Your task to perform on an android device: open app "Paramount+ | Peak Streaming" (install if not already installed), go to login, and select forgot password Image 0: 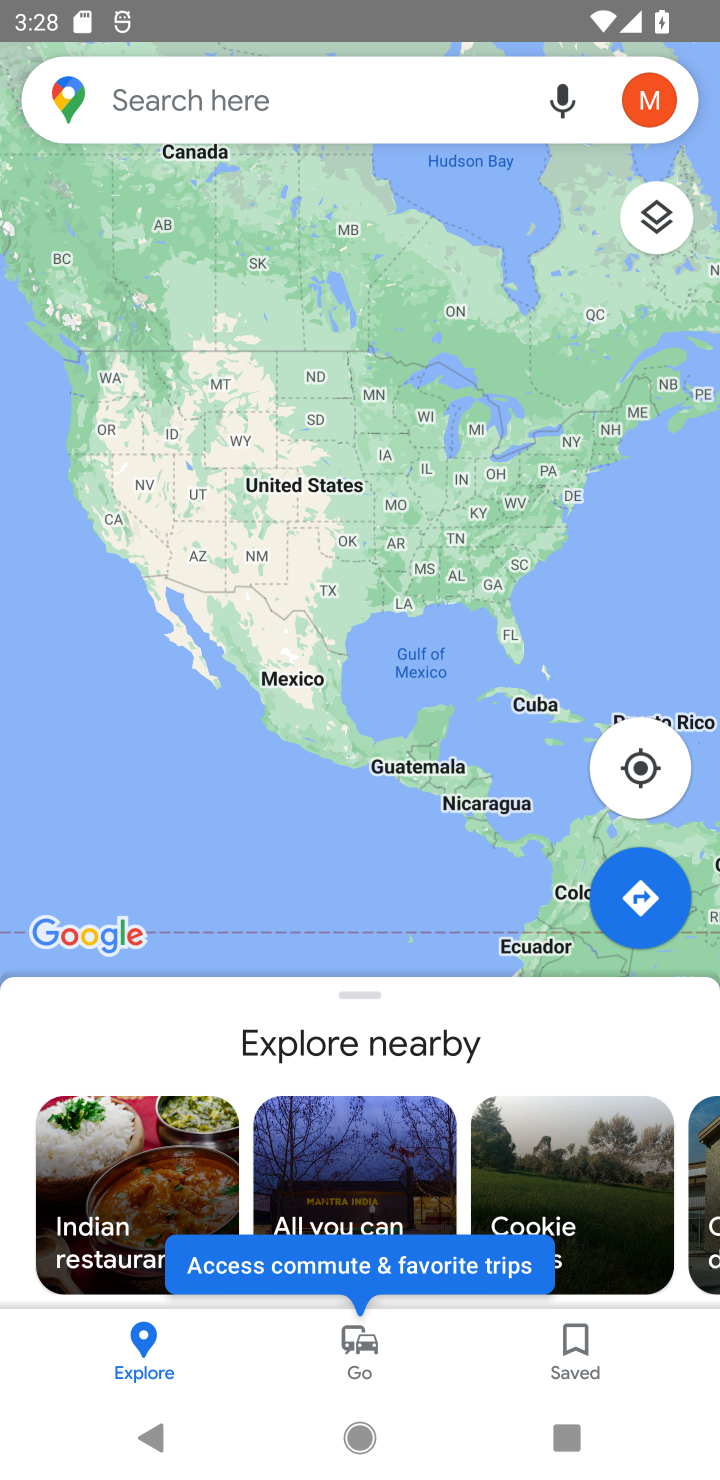
Step 0: click (452, 96)
Your task to perform on an android device: open app "Paramount+ | Peak Streaming" (install if not already installed), go to login, and select forgot password Image 1: 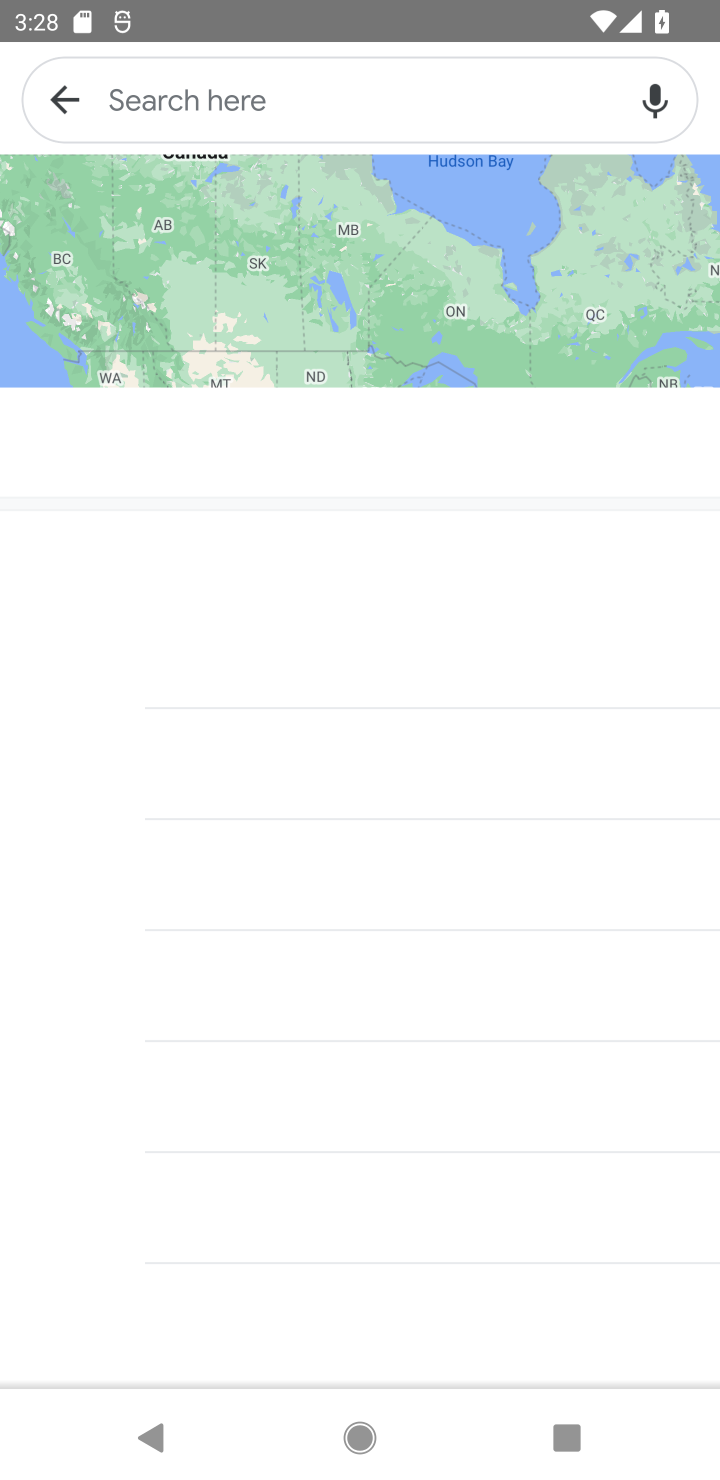
Step 1: press home button
Your task to perform on an android device: open app "Paramount+ | Peak Streaming" (install if not already installed), go to login, and select forgot password Image 2: 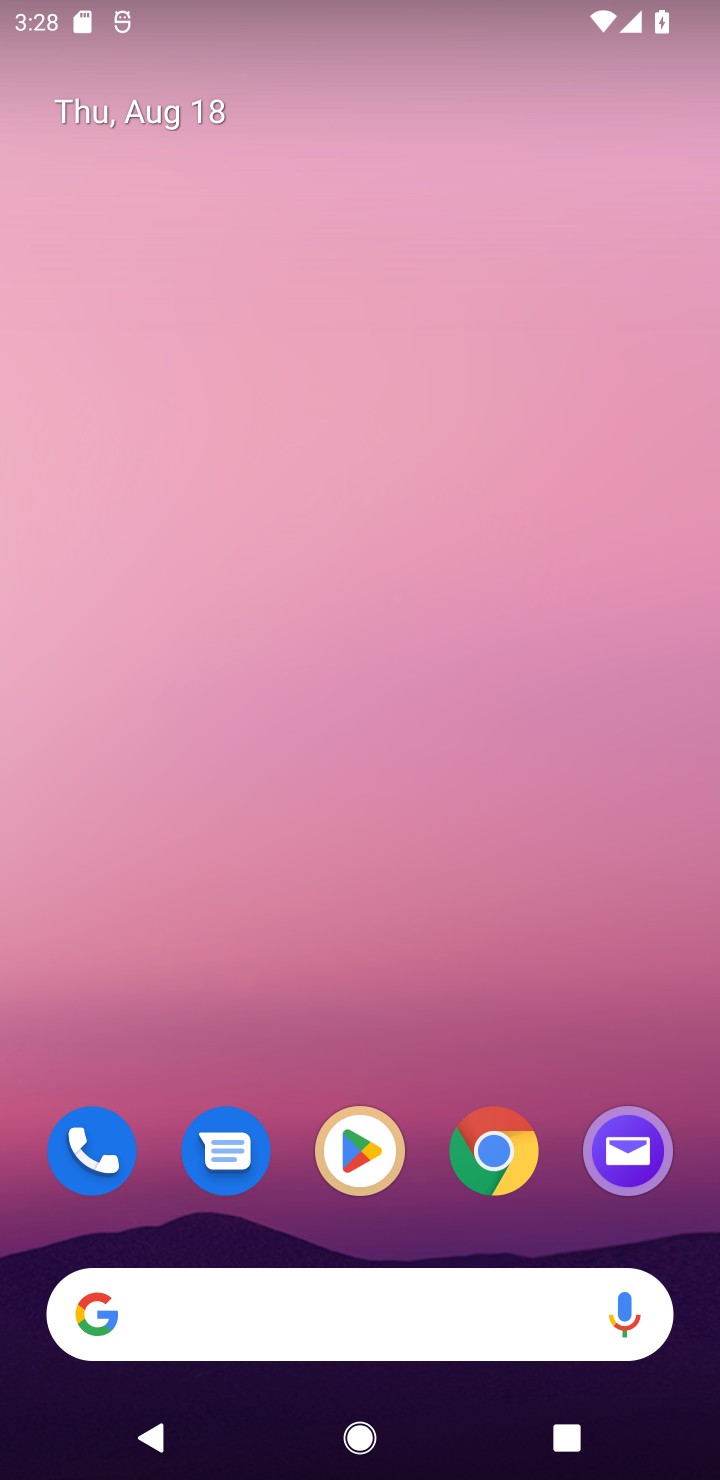
Step 2: click (352, 1153)
Your task to perform on an android device: open app "Paramount+ | Peak Streaming" (install if not already installed), go to login, and select forgot password Image 3: 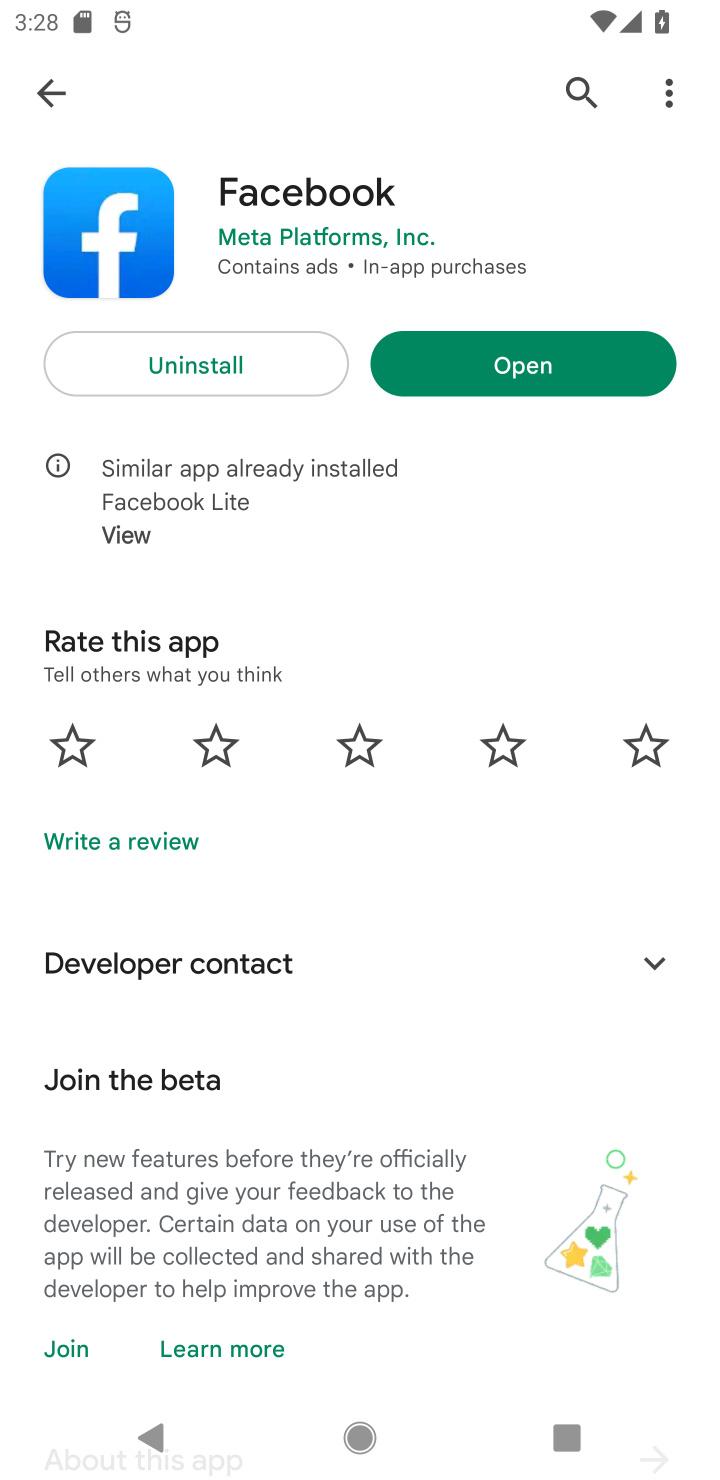
Step 3: click (590, 111)
Your task to perform on an android device: open app "Paramount+ | Peak Streaming" (install if not already installed), go to login, and select forgot password Image 4: 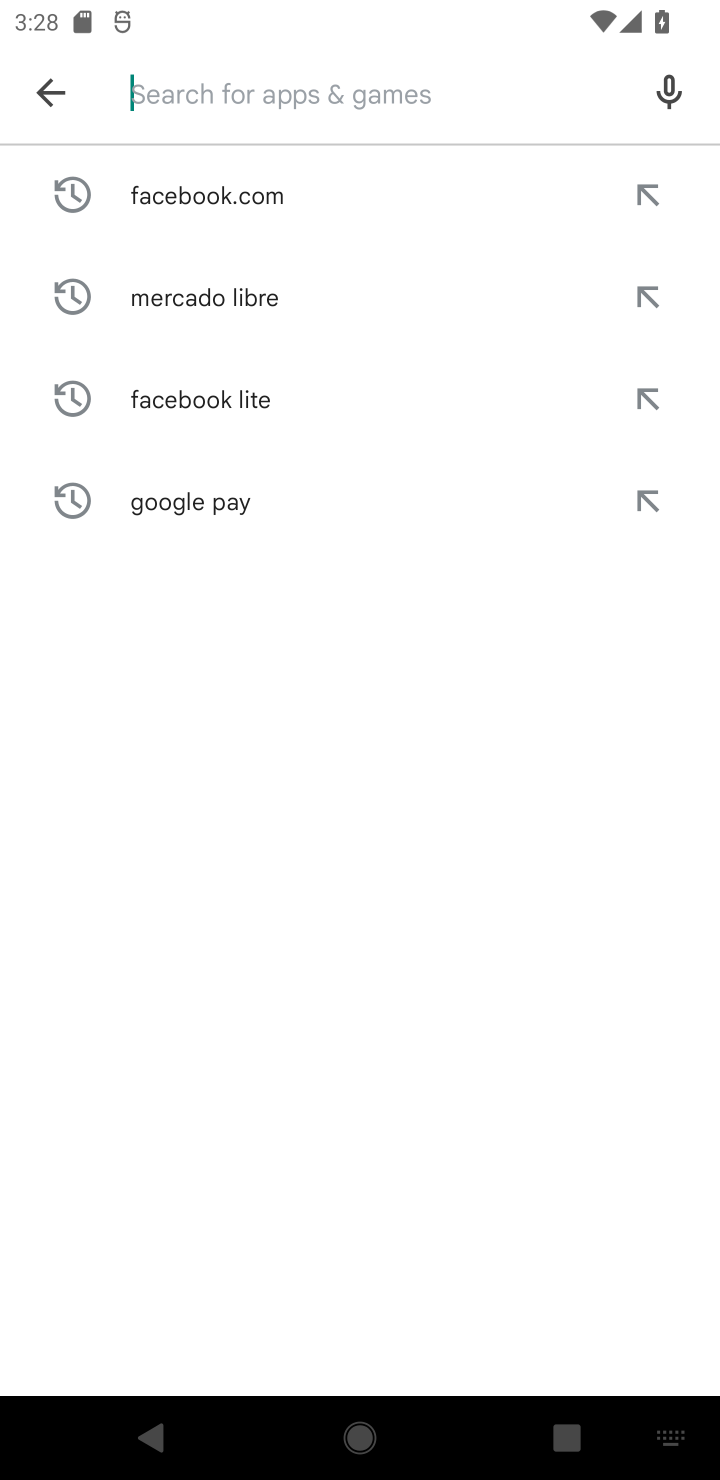
Step 4: click (685, 93)
Your task to perform on an android device: open app "Paramount+ | Peak Streaming" (install if not already installed), go to login, and select forgot password Image 5: 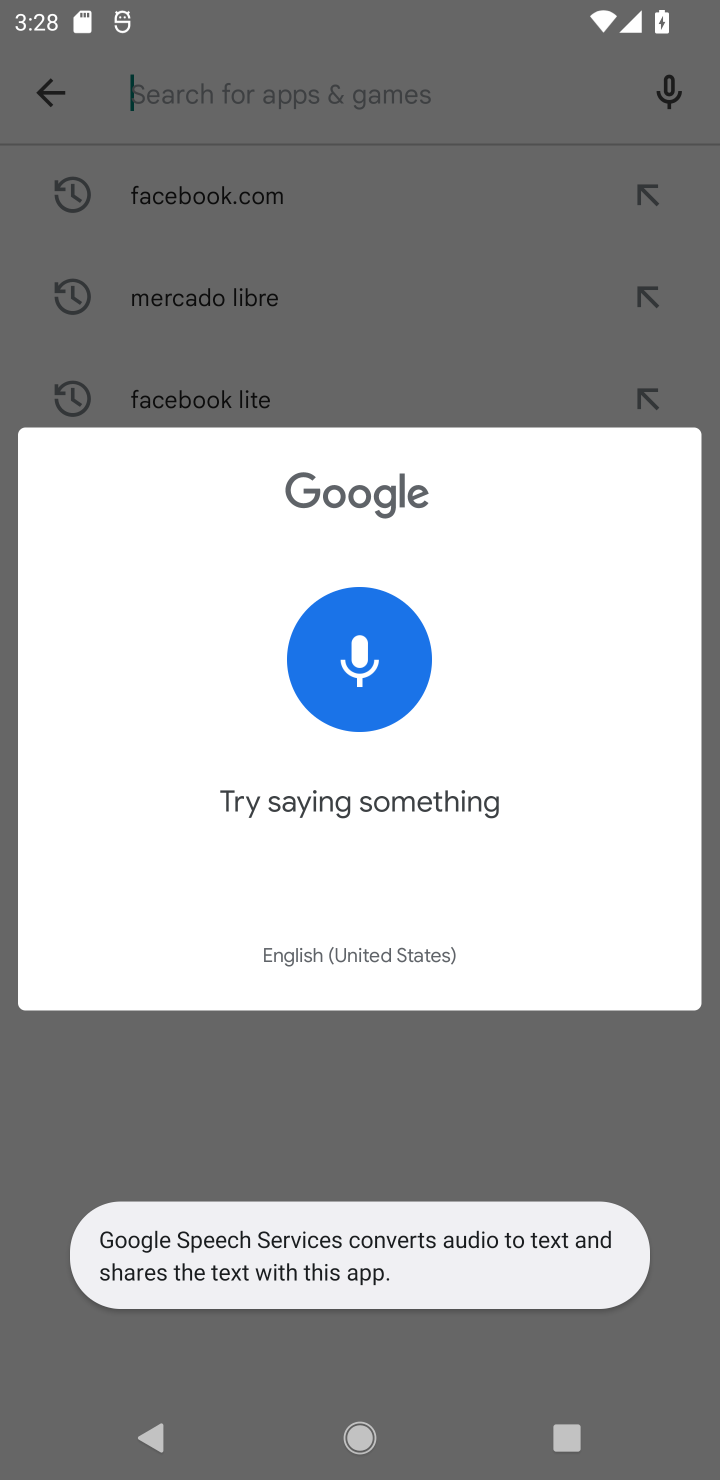
Step 5: click (401, 259)
Your task to perform on an android device: open app "Paramount+ | Peak Streaming" (install if not already installed), go to login, and select forgot password Image 6: 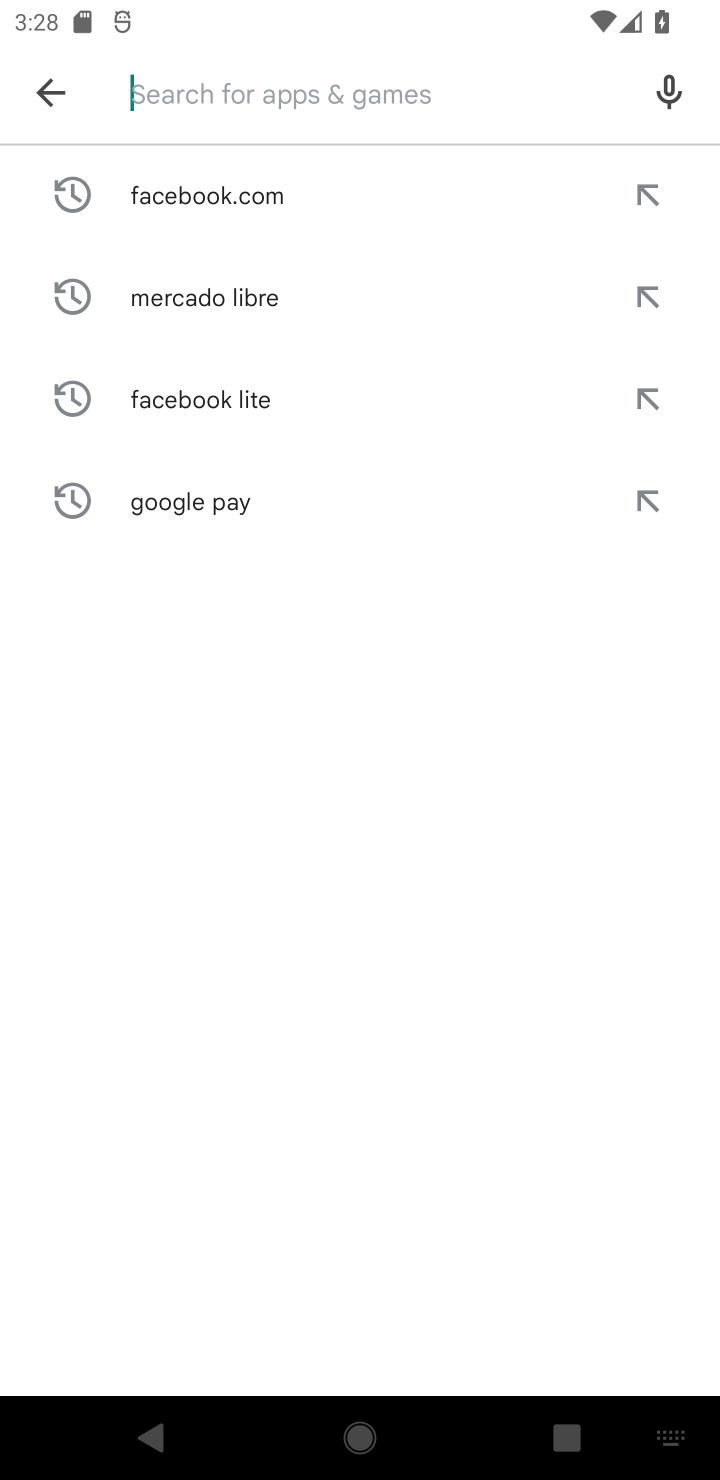
Step 6: press home button
Your task to perform on an android device: open app "Paramount+ | Peak Streaming" (install if not already installed), go to login, and select forgot password Image 7: 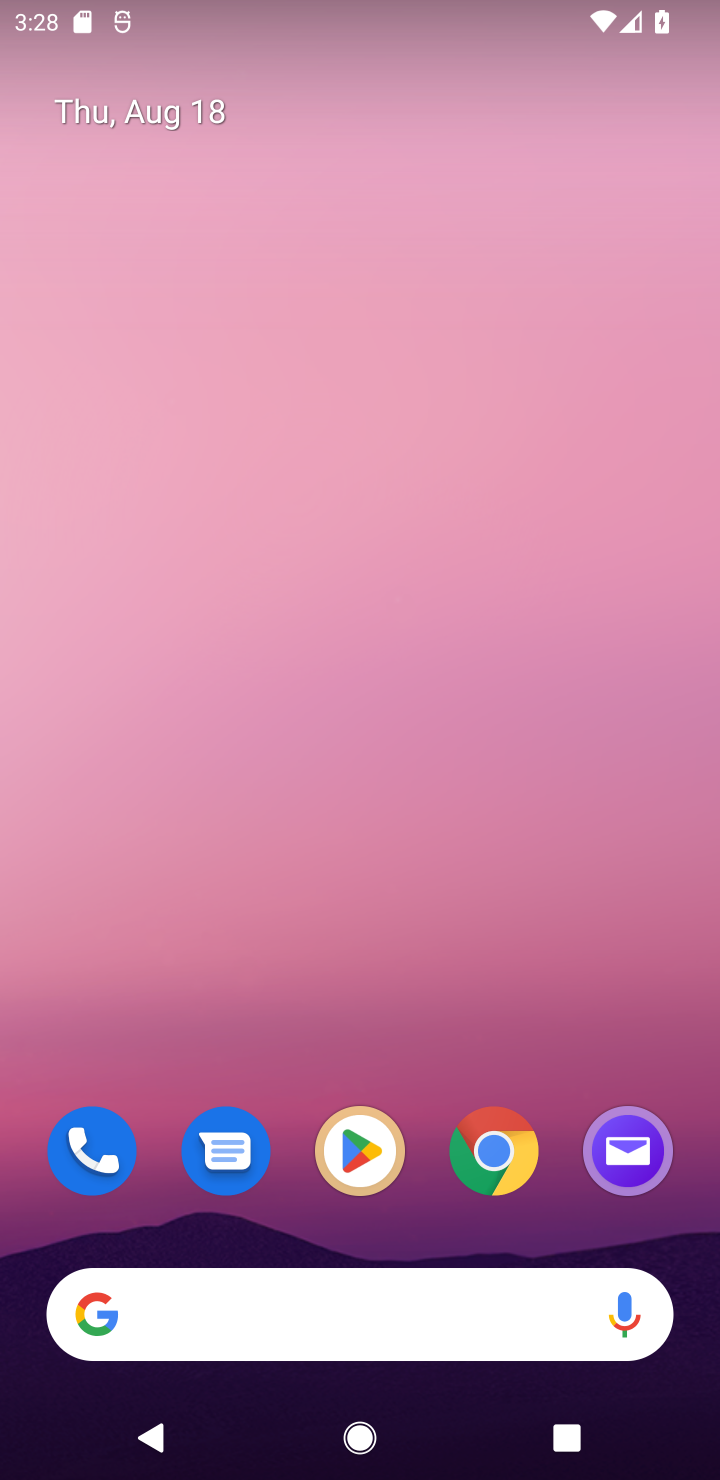
Step 7: drag from (305, 1245) to (554, 213)
Your task to perform on an android device: open app "Paramount+ | Peak Streaming" (install if not already installed), go to login, and select forgot password Image 8: 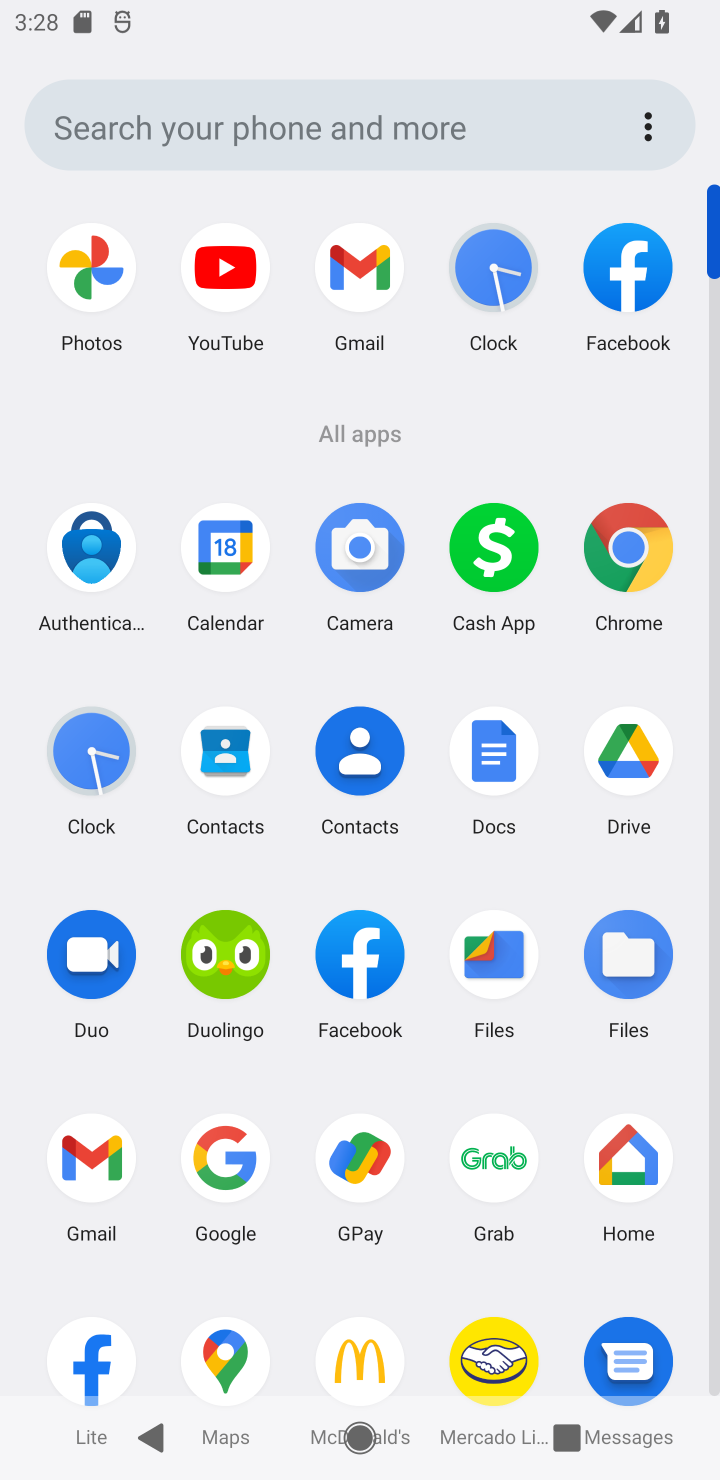
Step 8: click (711, 1365)
Your task to perform on an android device: open app "Paramount+ | Peak Streaming" (install if not already installed), go to login, and select forgot password Image 9: 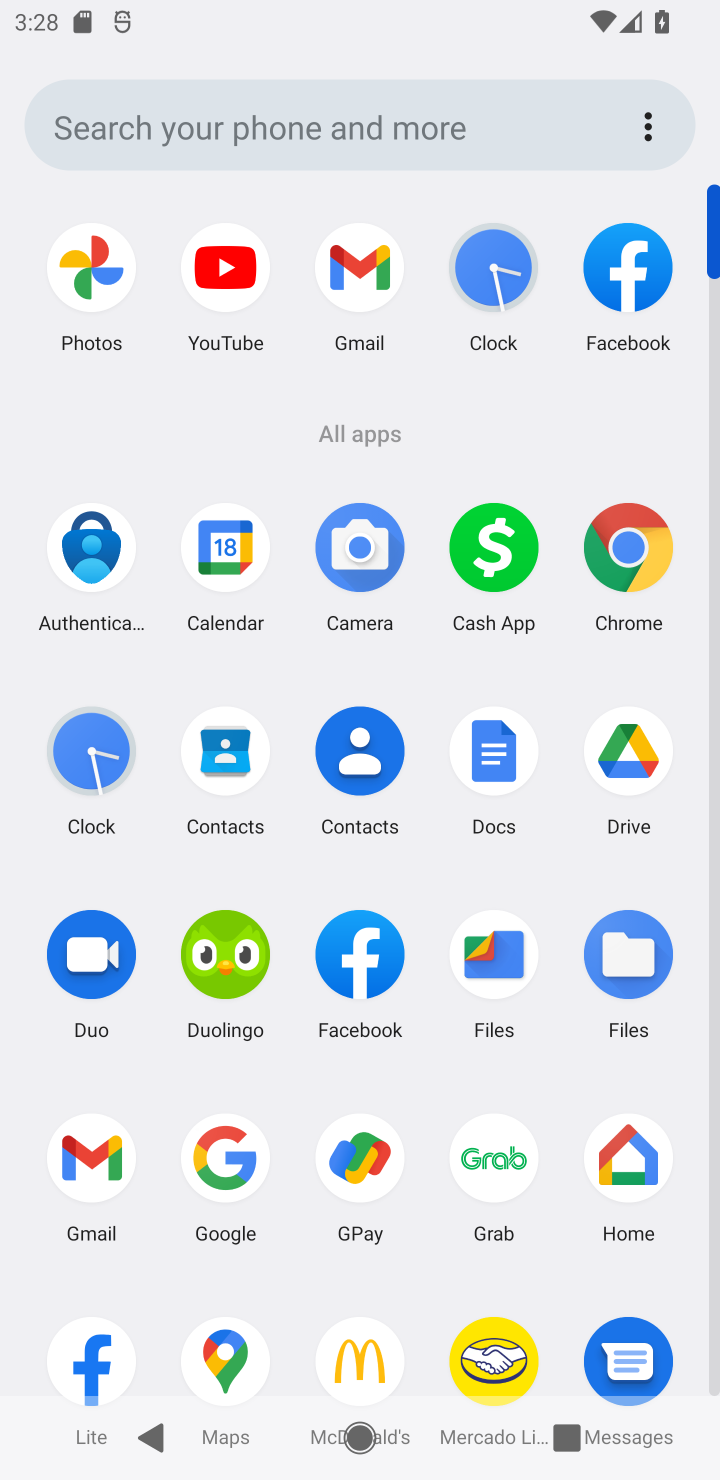
Step 9: drag from (492, 1294) to (548, 488)
Your task to perform on an android device: open app "Paramount+ | Peak Streaming" (install if not already installed), go to login, and select forgot password Image 10: 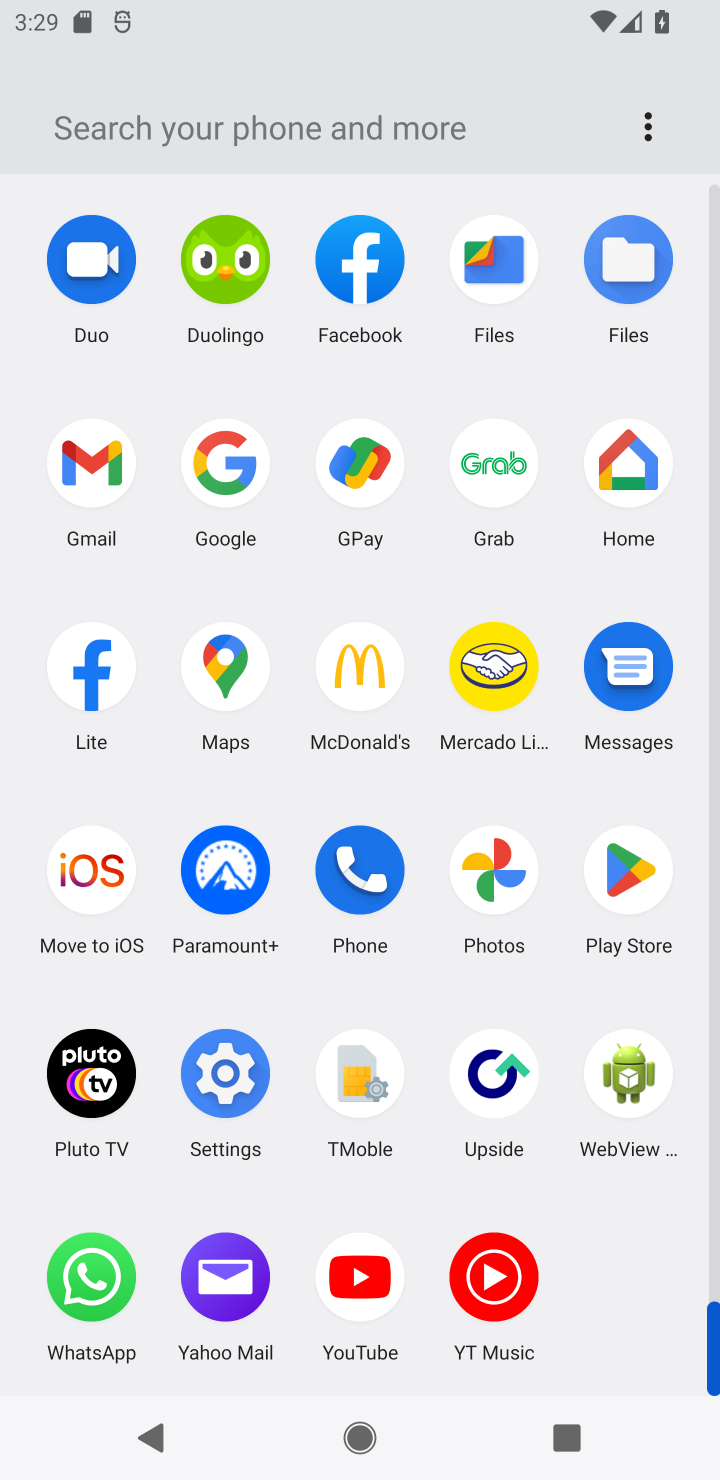
Step 10: click (228, 838)
Your task to perform on an android device: open app "Paramount+ | Peak Streaming" (install if not already installed), go to login, and select forgot password Image 11: 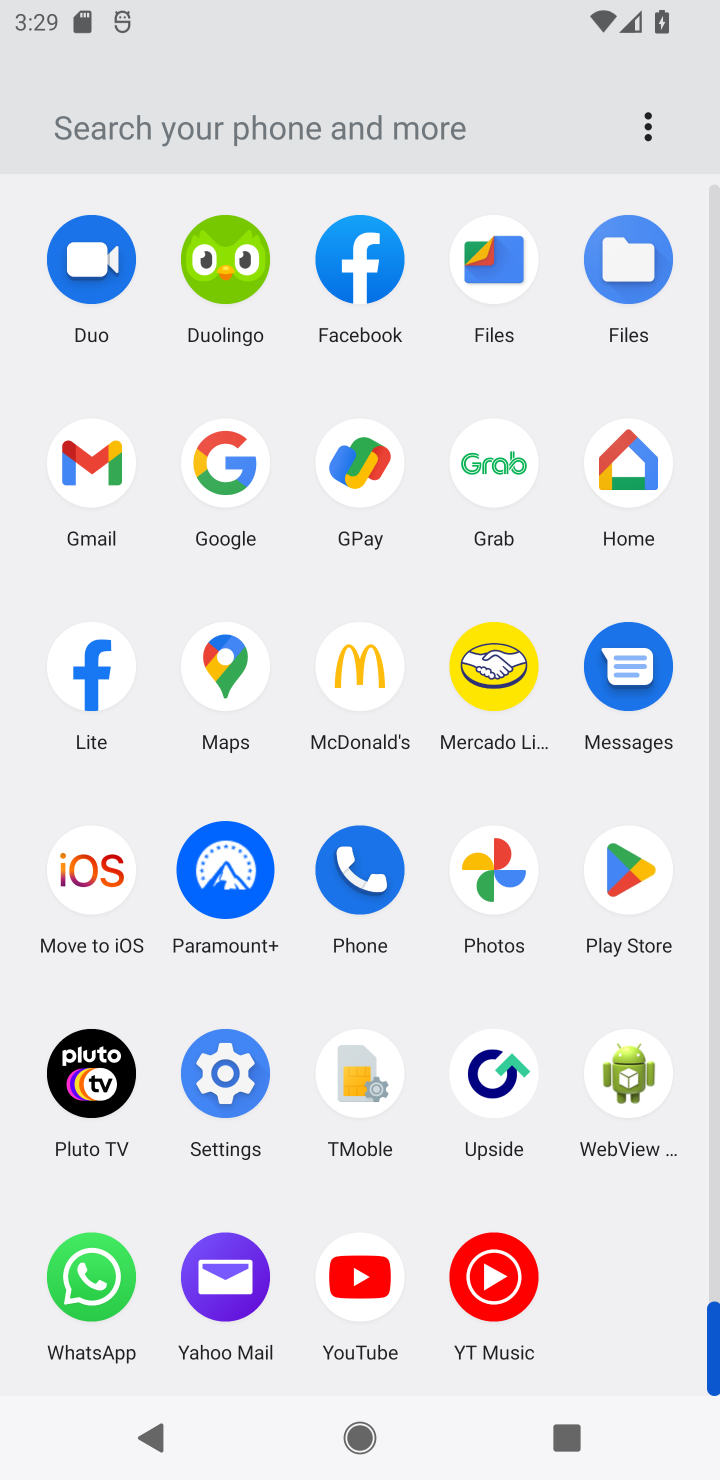
Step 11: task complete